Your task to perform on an android device: View the shopping cart on ebay.com. Add macbook air to the cart on ebay.com Image 0: 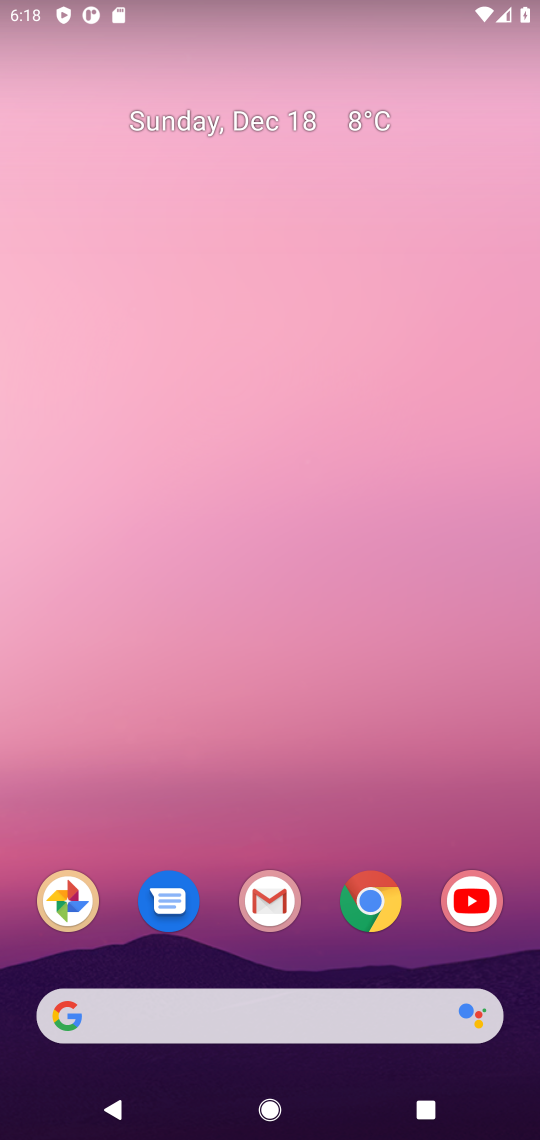
Step 0: click (390, 879)
Your task to perform on an android device: View the shopping cart on ebay.com. Add macbook air to the cart on ebay.com Image 1: 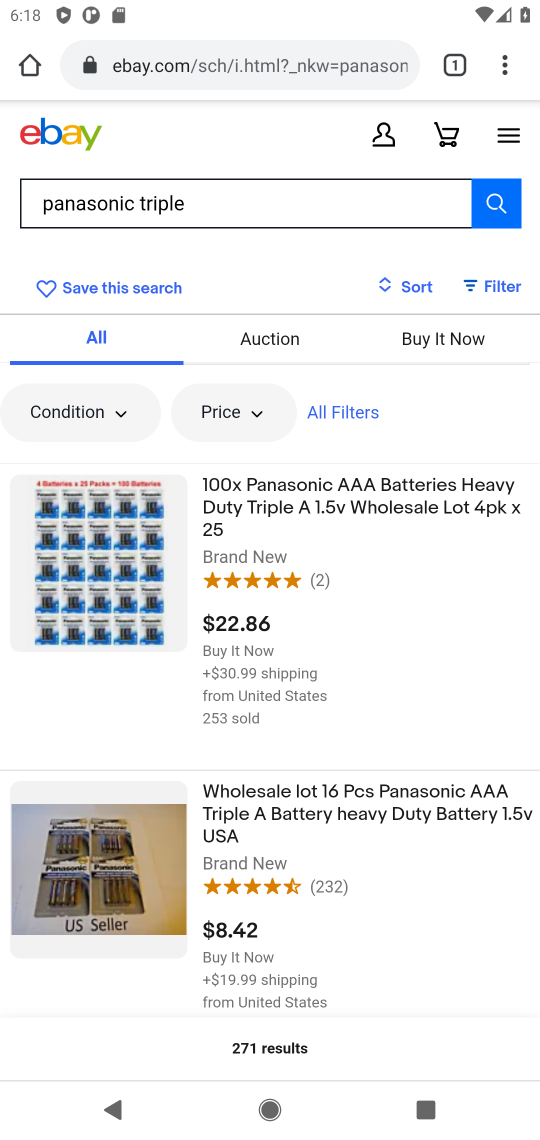
Step 1: click (120, 203)
Your task to perform on an android device: View the shopping cart on ebay.com. Add macbook air to the cart on ebay.com Image 2: 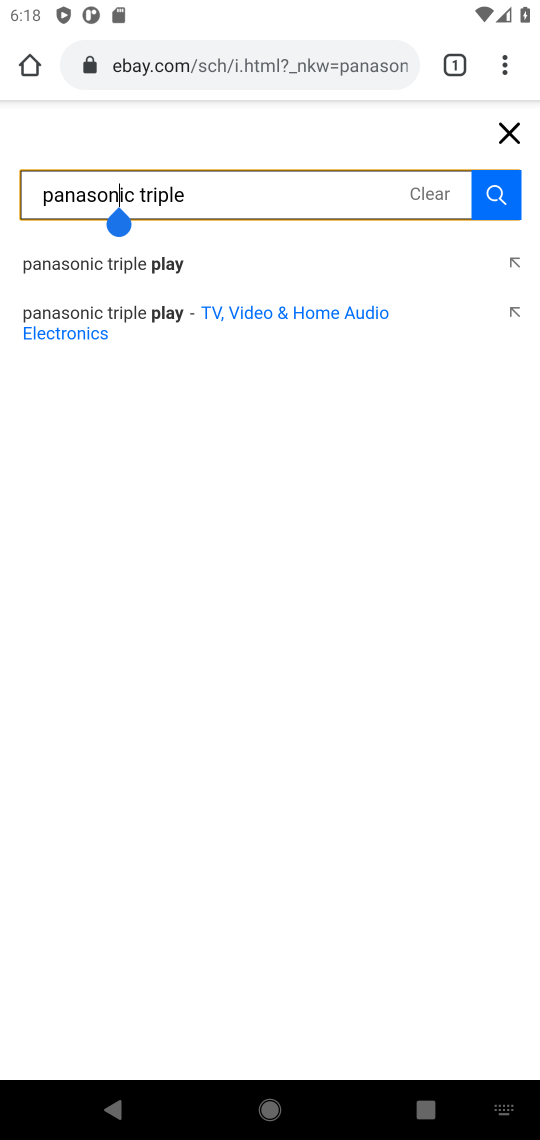
Step 2: click (426, 203)
Your task to perform on an android device: View the shopping cart on ebay.com. Add macbook air to the cart on ebay.com Image 3: 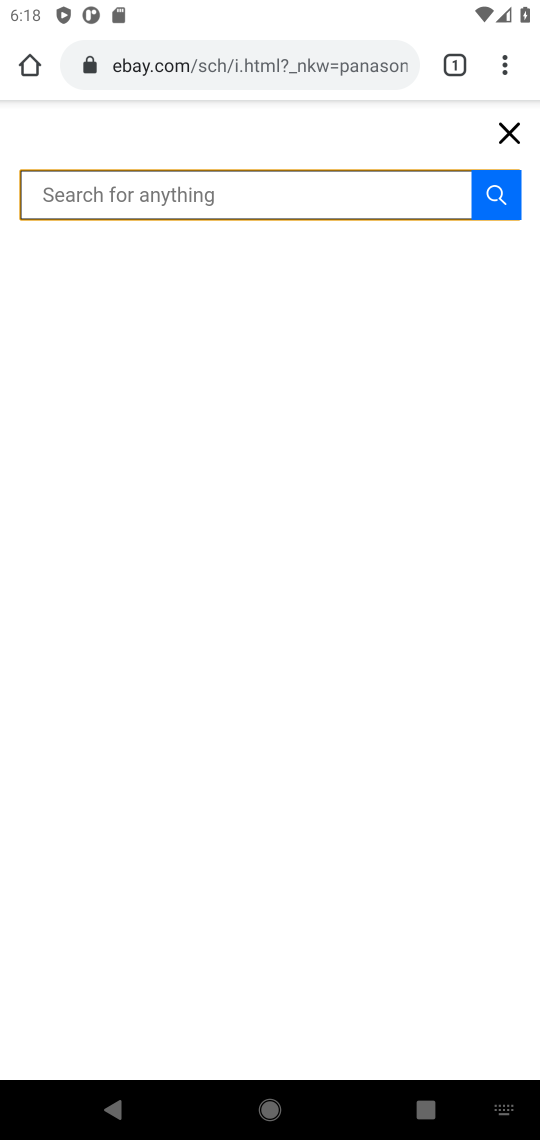
Step 3: type "macbook air "
Your task to perform on an android device: View the shopping cart on ebay.com. Add macbook air to the cart on ebay.com Image 4: 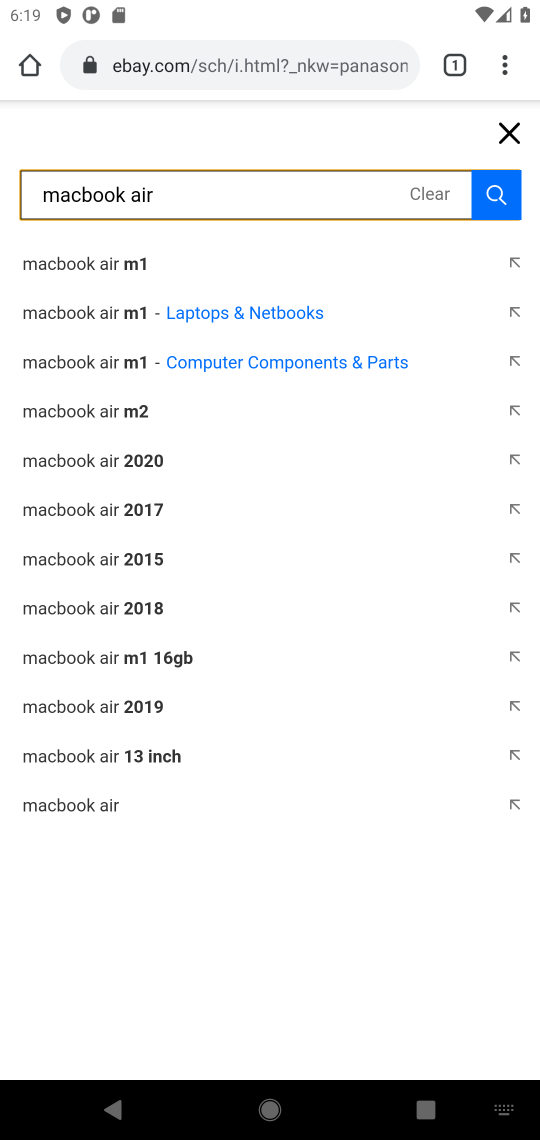
Step 4: click (500, 209)
Your task to perform on an android device: View the shopping cart on ebay.com. Add macbook air to the cart on ebay.com Image 5: 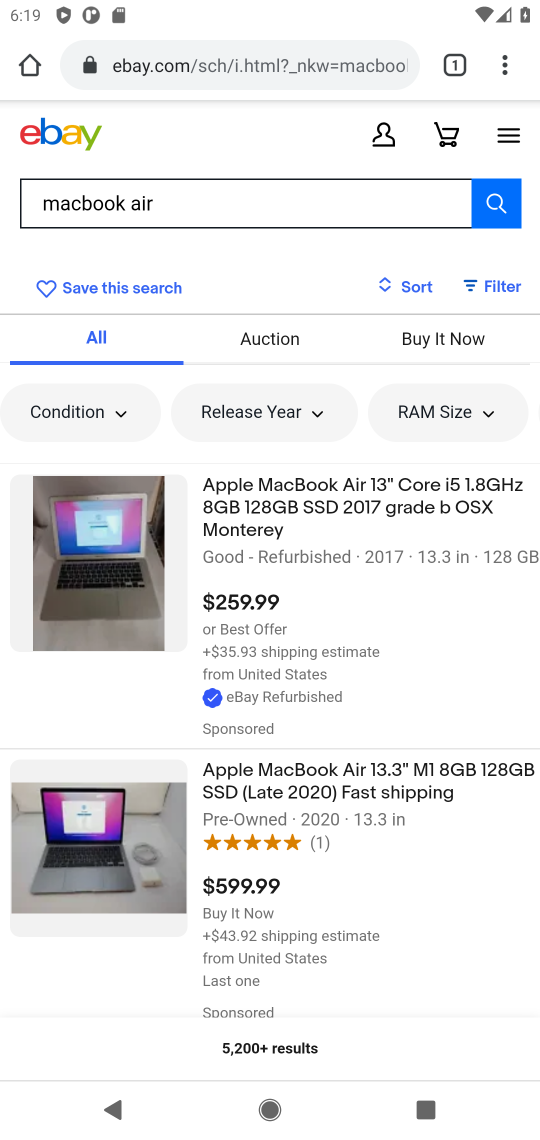
Step 5: click (414, 480)
Your task to perform on an android device: View the shopping cart on ebay.com. Add macbook air to the cart on ebay.com Image 6: 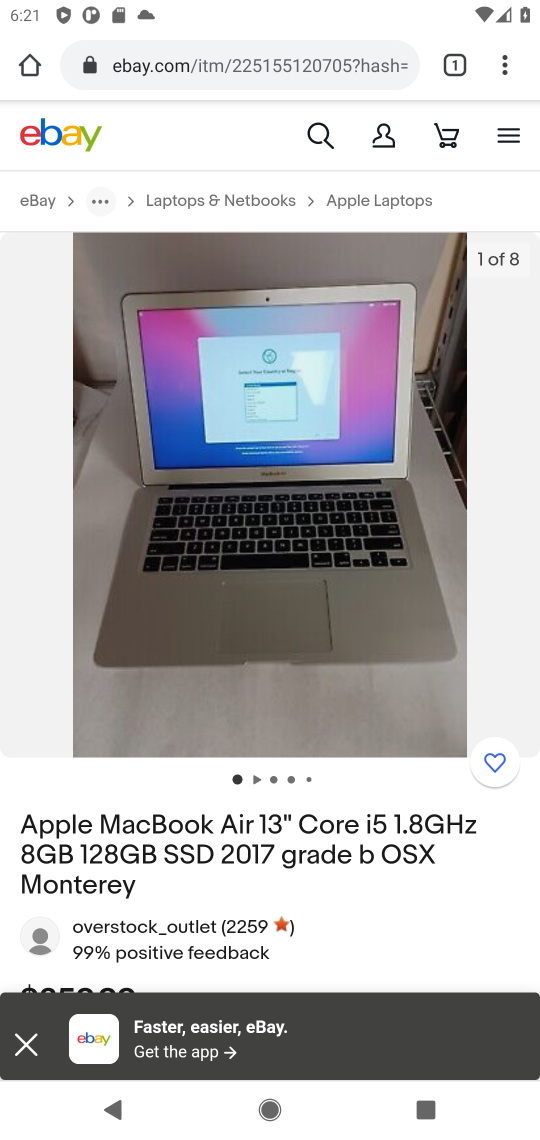
Step 6: click (339, 78)
Your task to perform on an android device: View the shopping cart on ebay.com. Add macbook air to the cart on ebay.com Image 7: 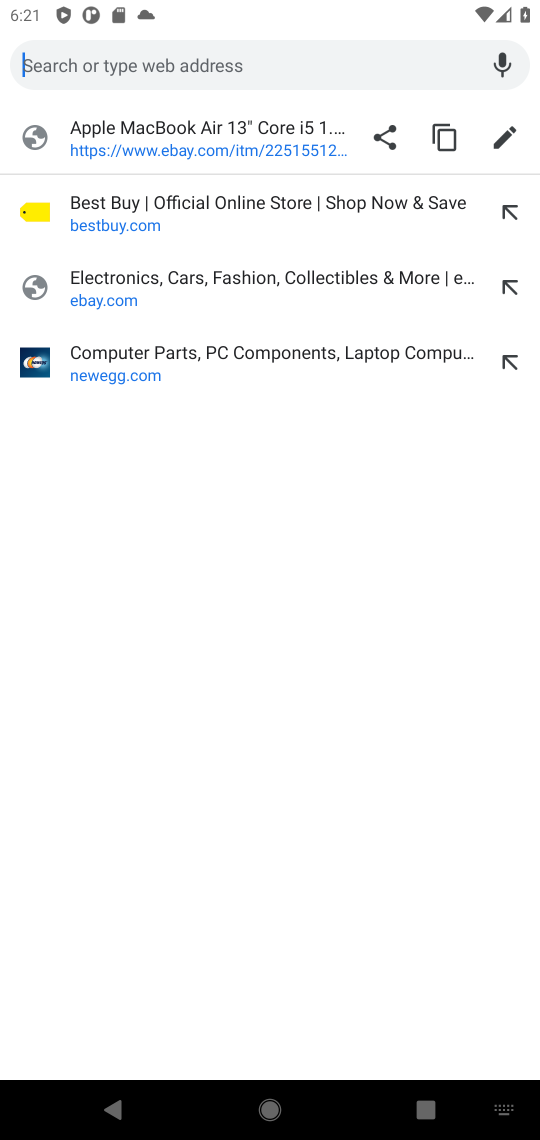
Step 7: click (245, 152)
Your task to perform on an android device: View the shopping cart on ebay.com. Add macbook air to the cart on ebay.com Image 8: 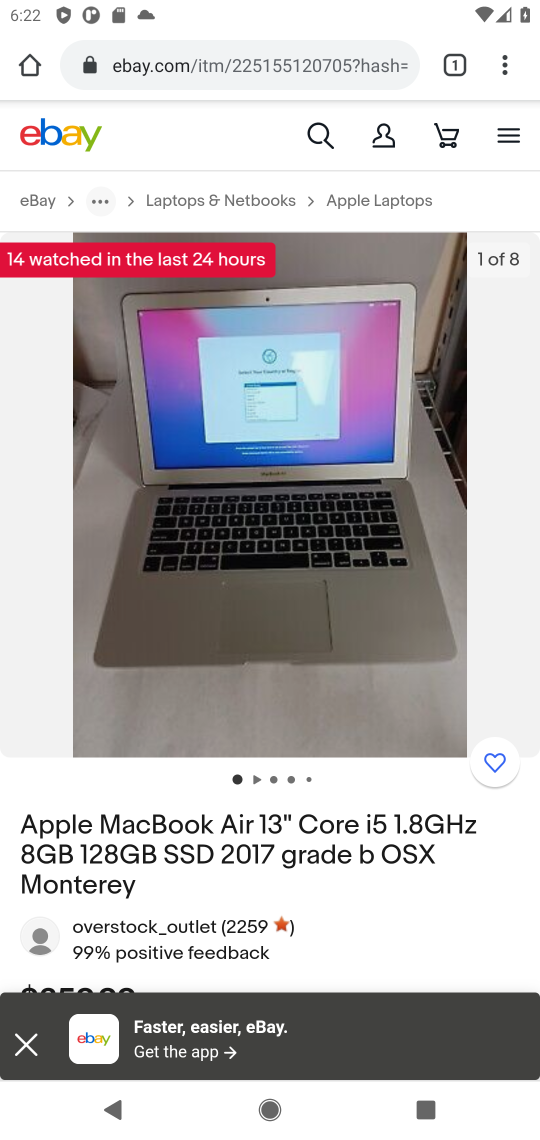
Step 8: task complete